Your task to perform on an android device: Open sound settings Image 0: 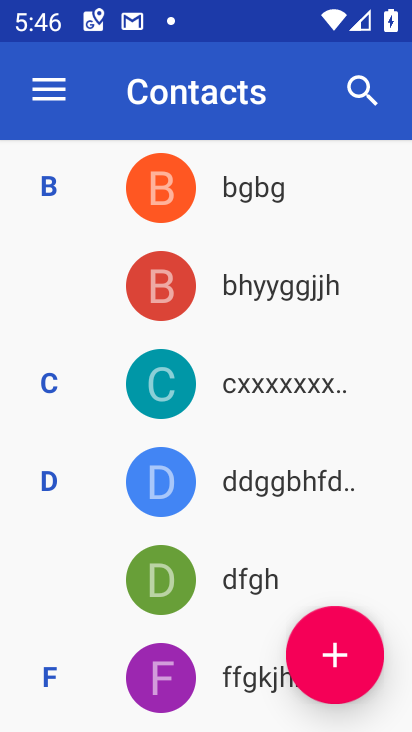
Step 0: press back button
Your task to perform on an android device: Open sound settings Image 1: 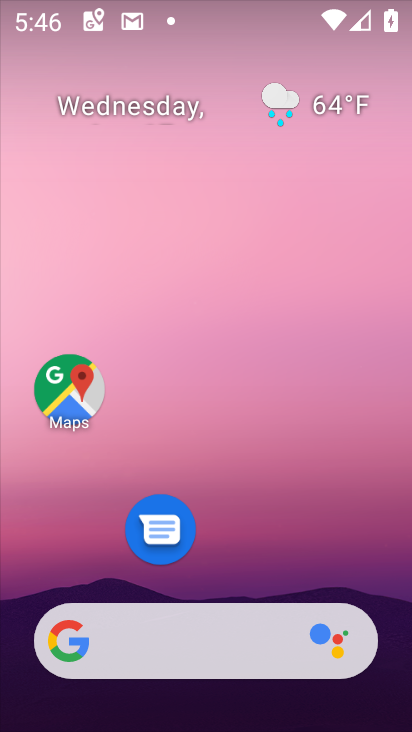
Step 1: drag from (206, 570) to (223, 20)
Your task to perform on an android device: Open sound settings Image 2: 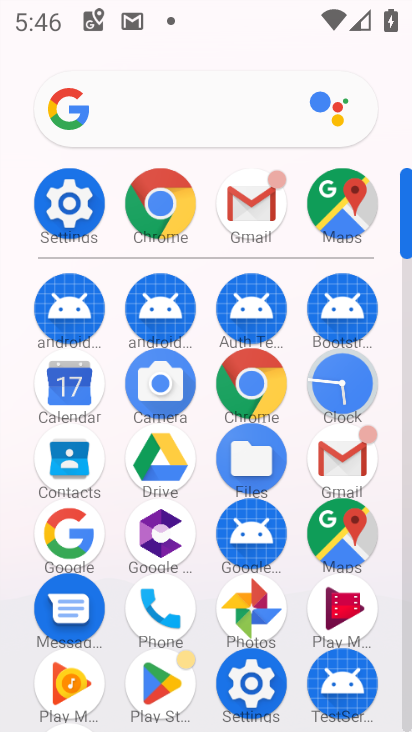
Step 2: click (63, 201)
Your task to perform on an android device: Open sound settings Image 3: 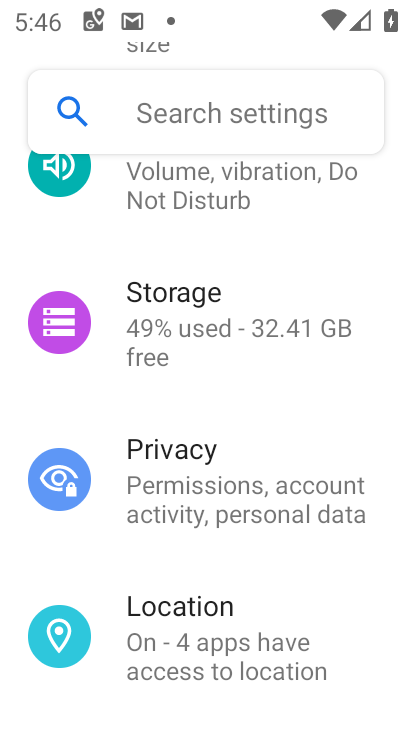
Step 3: drag from (273, 543) to (227, 717)
Your task to perform on an android device: Open sound settings Image 4: 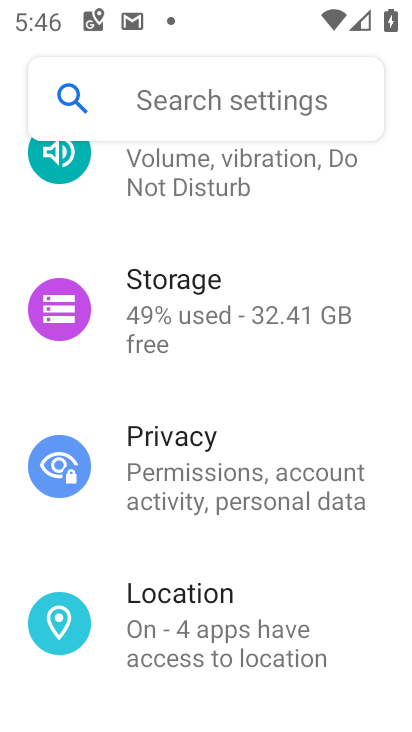
Step 4: drag from (239, 575) to (242, 276)
Your task to perform on an android device: Open sound settings Image 5: 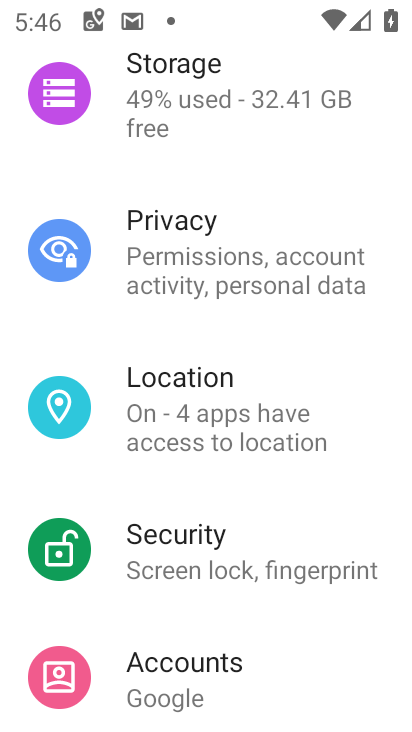
Step 5: drag from (240, 594) to (240, 336)
Your task to perform on an android device: Open sound settings Image 6: 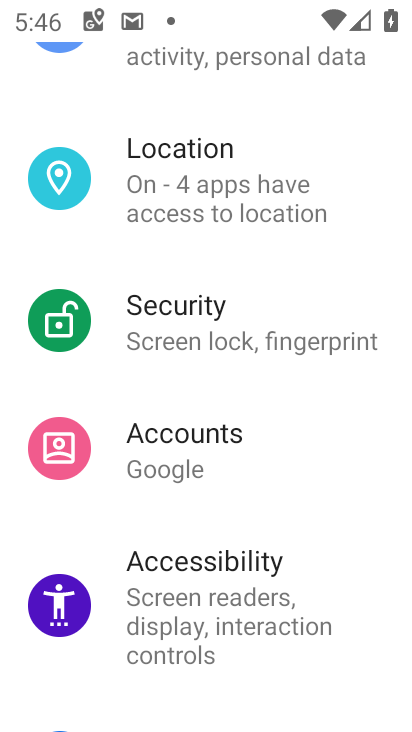
Step 6: drag from (325, 169) to (322, 723)
Your task to perform on an android device: Open sound settings Image 7: 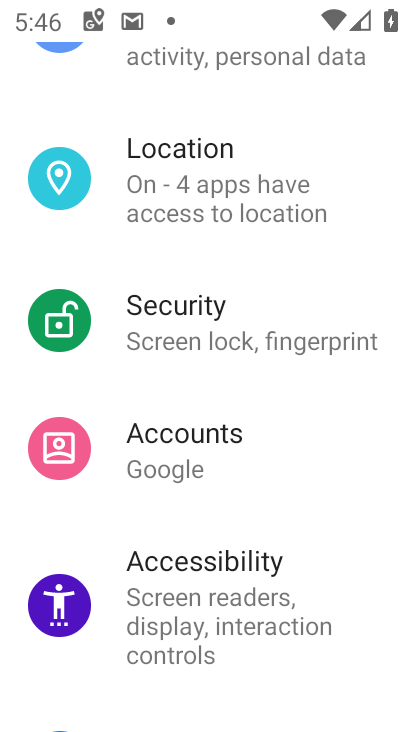
Step 7: drag from (270, 147) to (192, 709)
Your task to perform on an android device: Open sound settings Image 8: 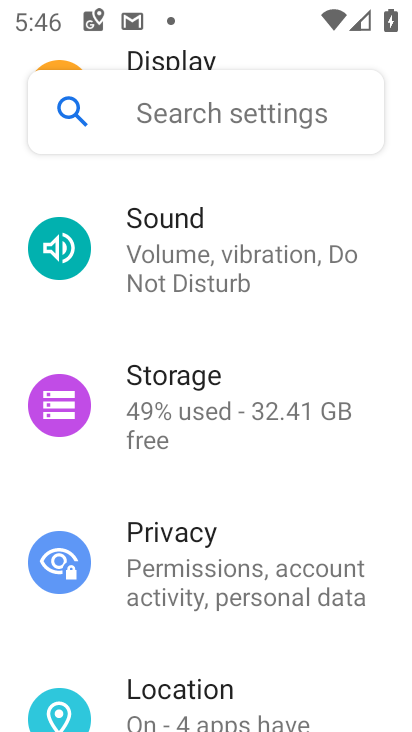
Step 8: click (166, 250)
Your task to perform on an android device: Open sound settings Image 9: 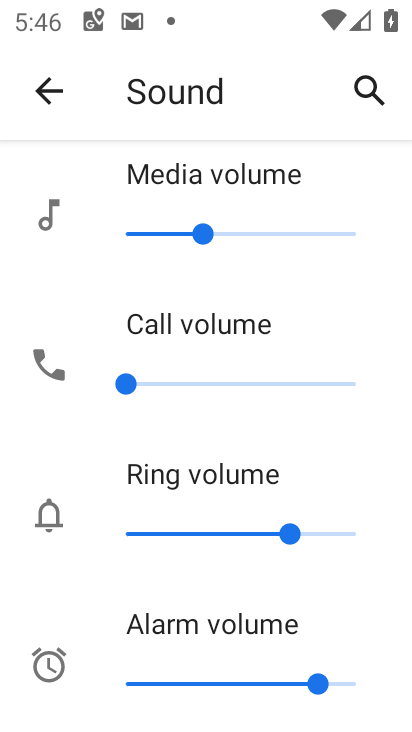
Step 9: task complete